Your task to perform on an android device: toggle data saver in the chrome app Image 0: 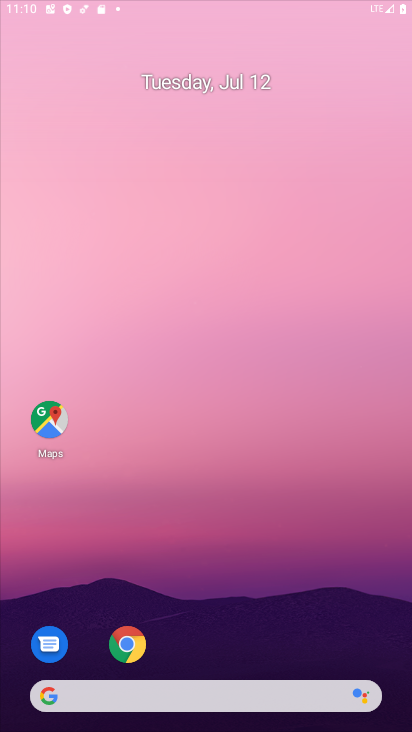
Step 0: click (289, 124)
Your task to perform on an android device: toggle data saver in the chrome app Image 1: 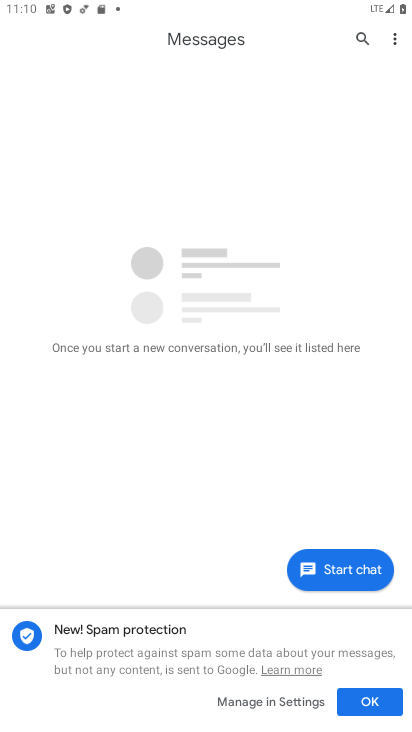
Step 1: press home button
Your task to perform on an android device: toggle data saver in the chrome app Image 2: 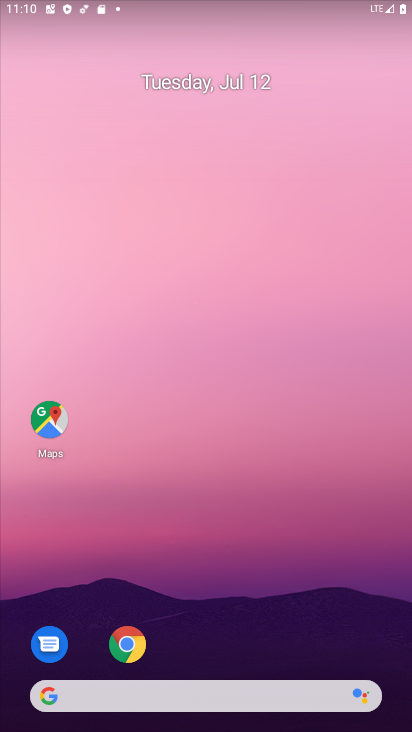
Step 2: click (128, 650)
Your task to perform on an android device: toggle data saver in the chrome app Image 3: 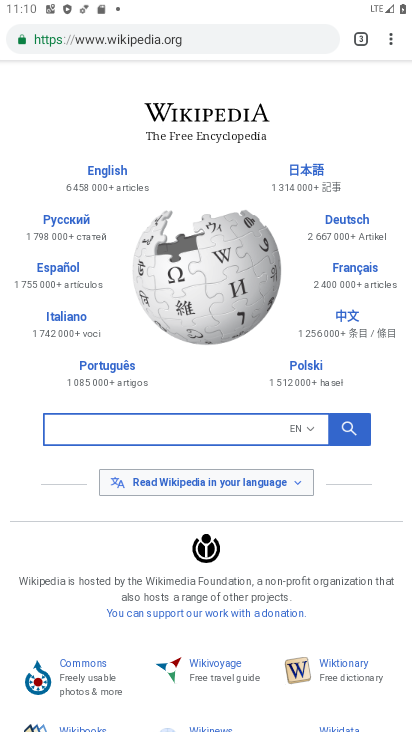
Step 3: click (390, 32)
Your task to perform on an android device: toggle data saver in the chrome app Image 4: 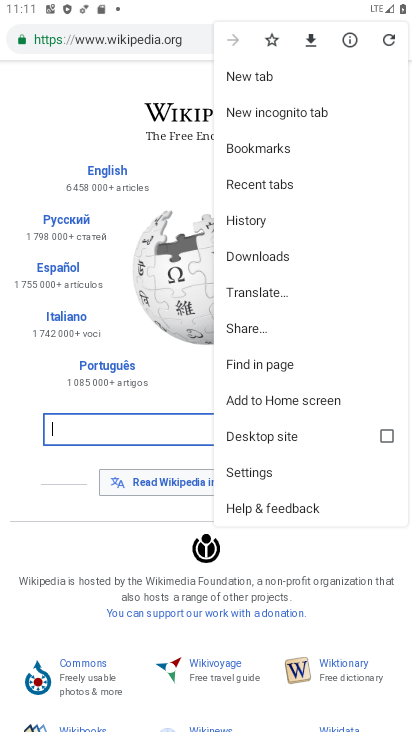
Step 4: click (279, 475)
Your task to perform on an android device: toggle data saver in the chrome app Image 5: 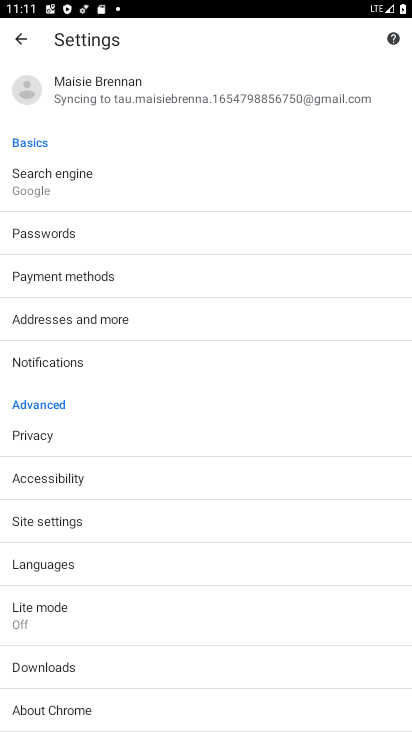
Step 5: click (50, 611)
Your task to perform on an android device: toggle data saver in the chrome app Image 6: 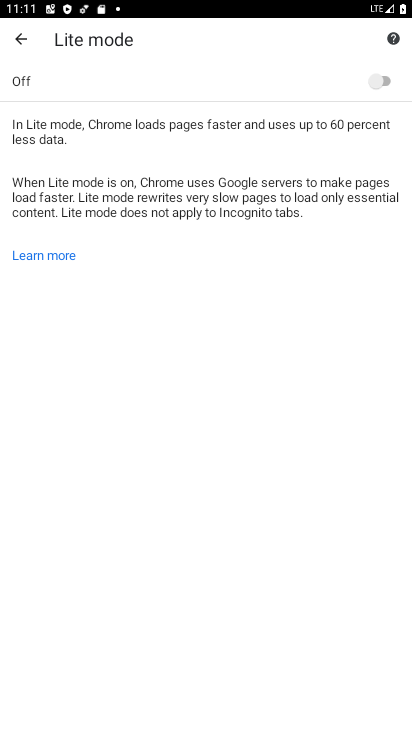
Step 6: click (382, 77)
Your task to perform on an android device: toggle data saver in the chrome app Image 7: 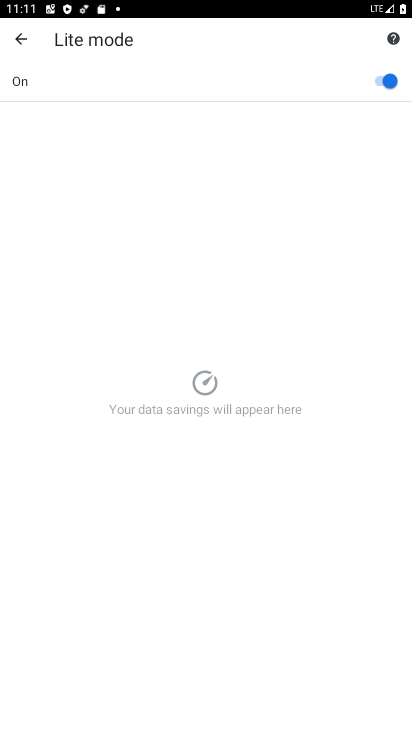
Step 7: task complete